Your task to perform on an android device: Open wifi settings Image 0: 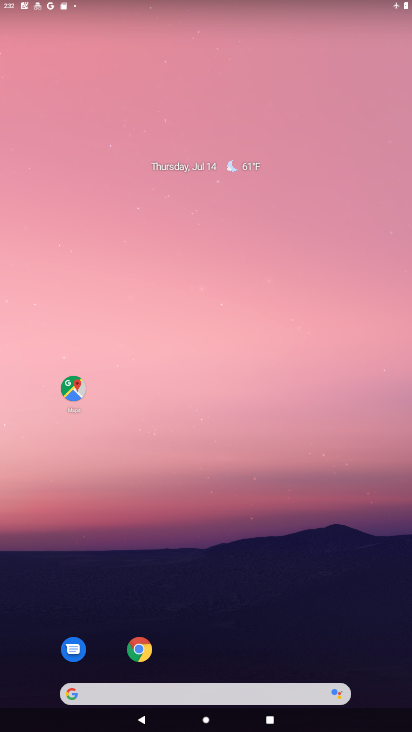
Step 0: drag from (294, 686) to (293, 26)
Your task to perform on an android device: Open wifi settings Image 1: 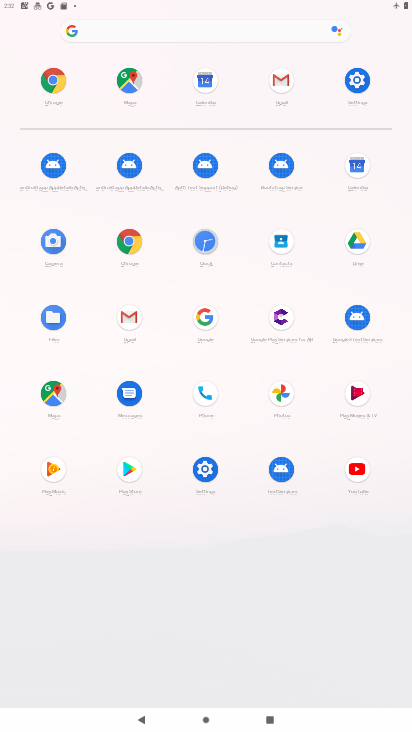
Step 1: click (364, 95)
Your task to perform on an android device: Open wifi settings Image 2: 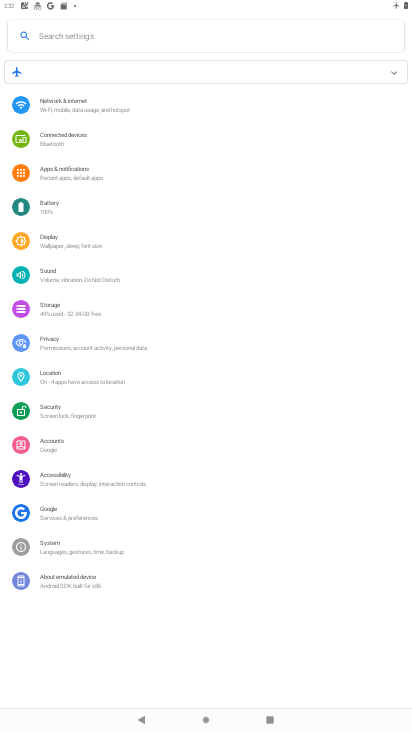
Step 2: click (80, 98)
Your task to perform on an android device: Open wifi settings Image 3: 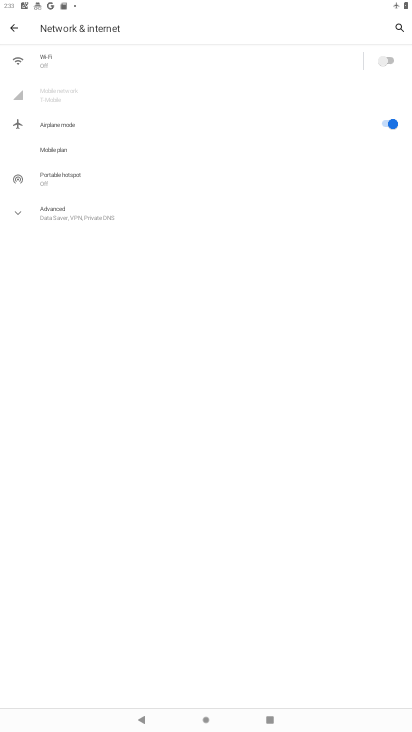
Step 3: task complete